Your task to perform on an android device: Search for vegetarian restaurants on Maps Image 0: 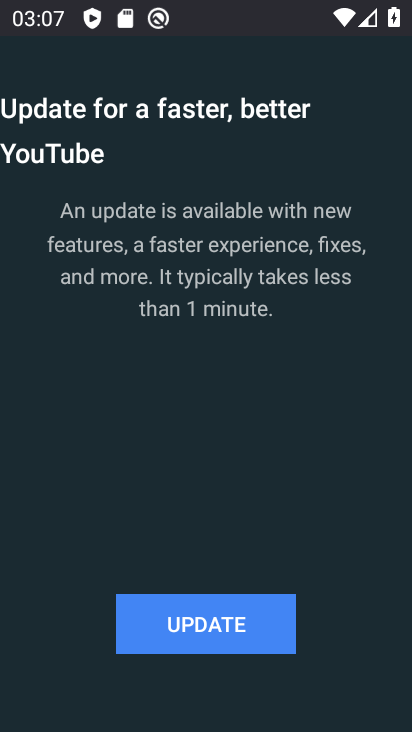
Step 0: press back button
Your task to perform on an android device: Search for vegetarian restaurants on Maps Image 1: 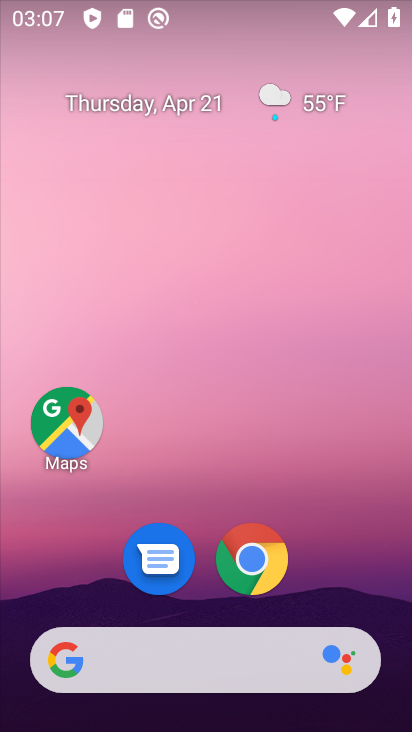
Step 1: click (75, 417)
Your task to perform on an android device: Search for vegetarian restaurants on Maps Image 2: 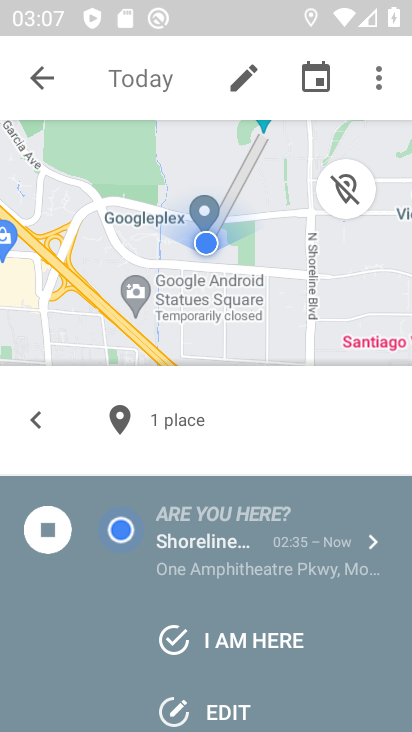
Step 2: click (56, 73)
Your task to perform on an android device: Search for vegetarian restaurants on Maps Image 3: 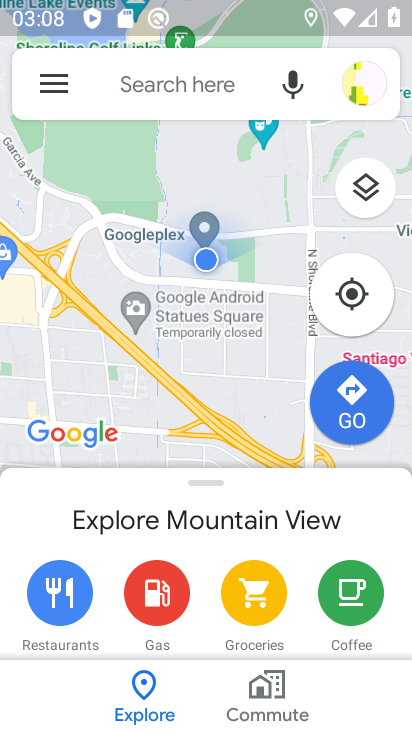
Step 3: click (180, 81)
Your task to perform on an android device: Search for vegetarian restaurants on Maps Image 4: 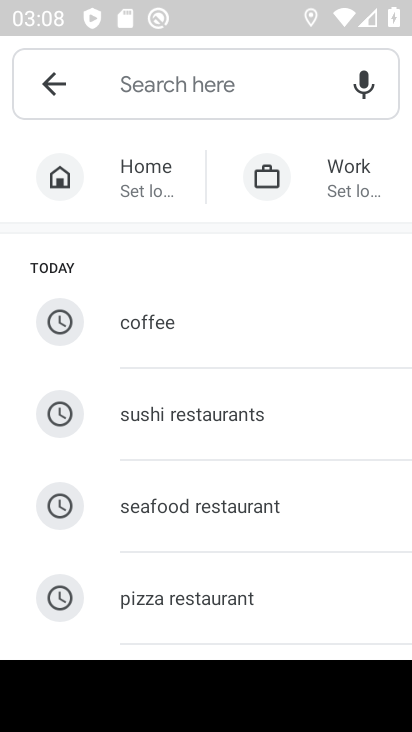
Step 4: type "vegetarian restaurant"
Your task to perform on an android device: Search for vegetarian restaurants on Maps Image 5: 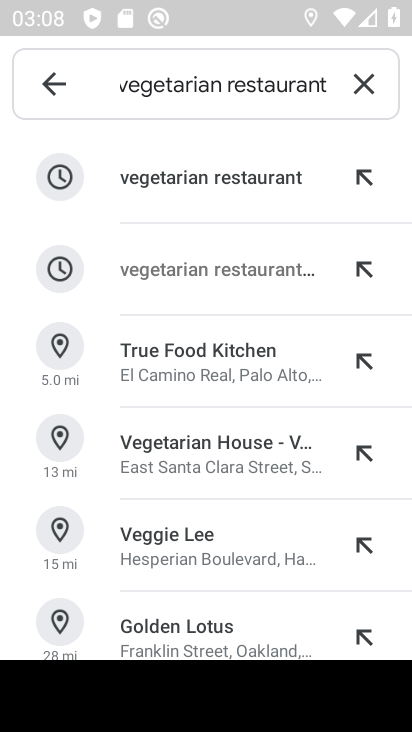
Step 5: click (291, 182)
Your task to perform on an android device: Search for vegetarian restaurants on Maps Image 6: 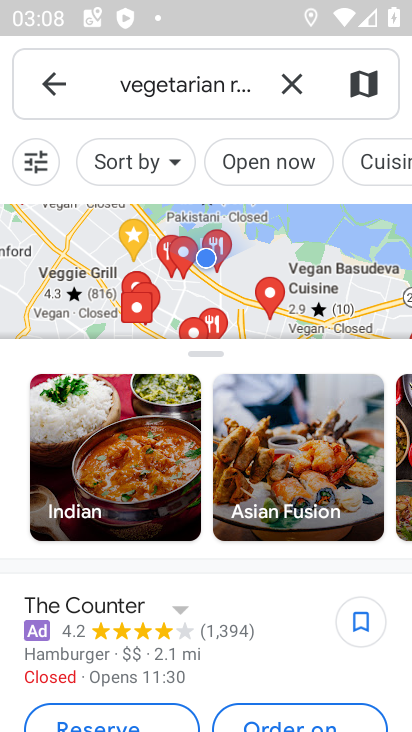
Step 6: task complete